Your task to perform on an android device: Add "dell alienware" to the cart on bestbuy Image 0: 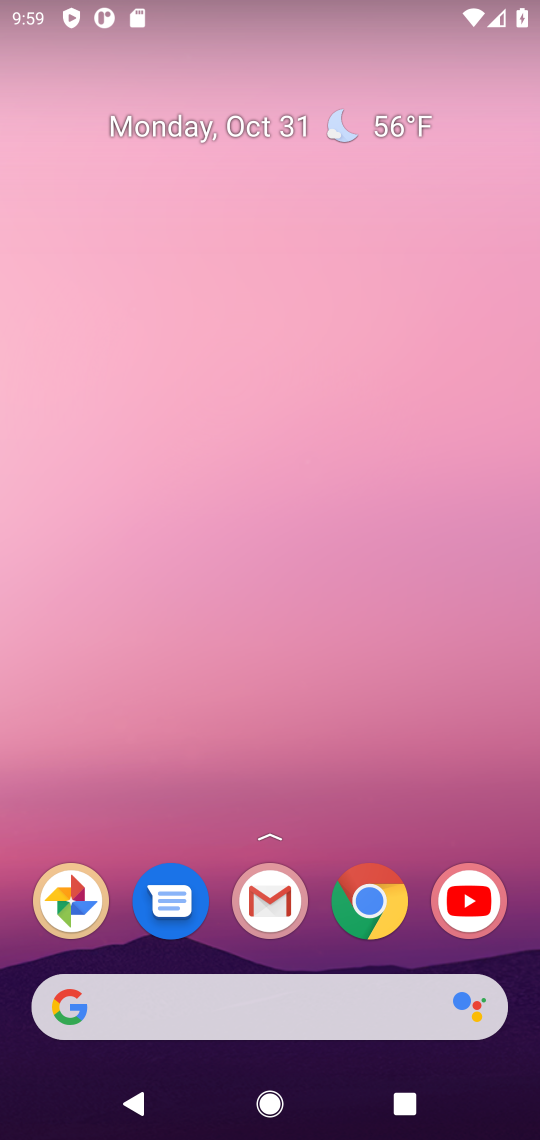
Step 0: drag from (156, 1035) to (193, 431)
Your task to perform on an android device: Add "dell alienware" to the cart on bestbuy Image 1: 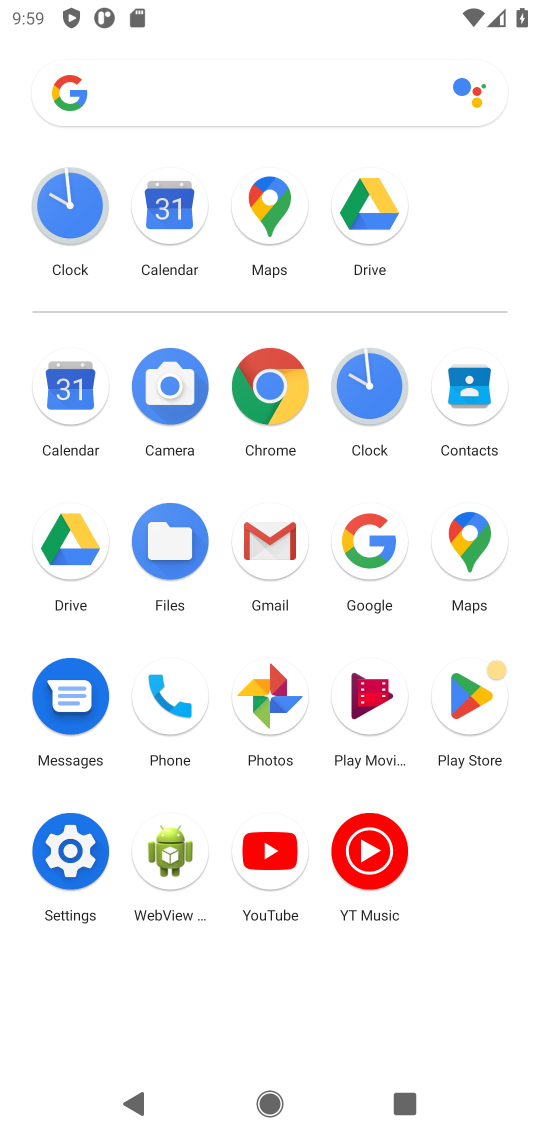
Step 1: click (357, 527)
Your task to perform on an android device: Add "dell alienware" to the cart on bestbuy Image 2: 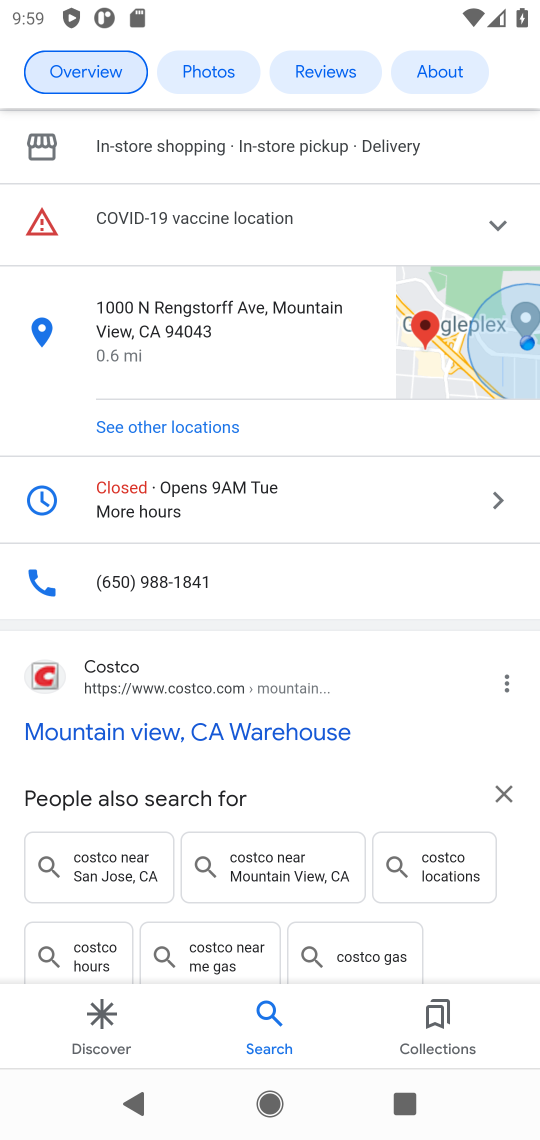
Step 2: drag from (218, 241) to (116, 975)
Your task to perform on an android device: Add "dell alienware" to the cart on bestbuy Image 3: 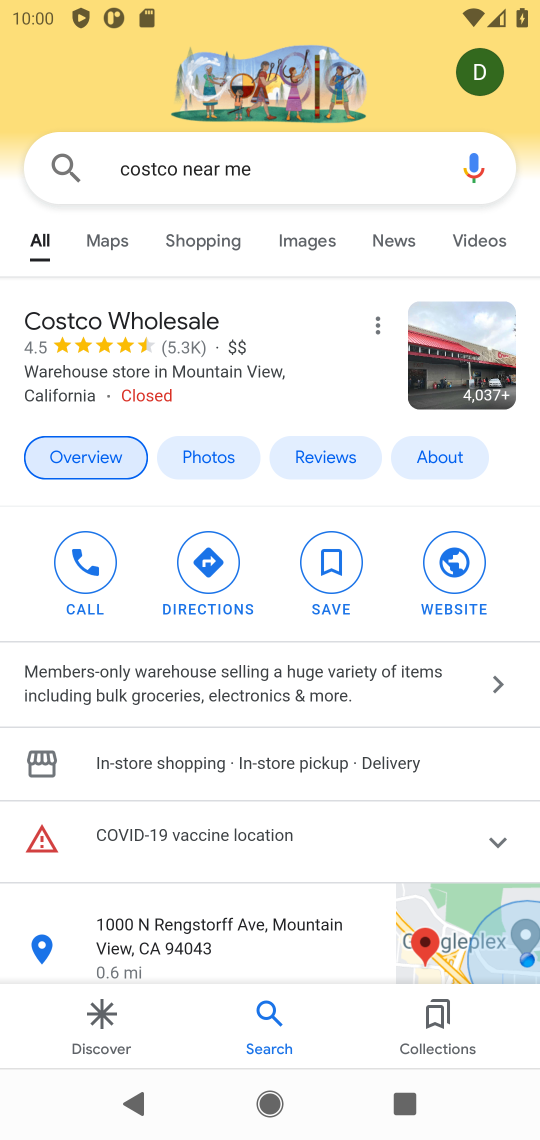
Step 3: click (300, 152)
Your task to perform on an android device: Add "dell alienware" to the cart on bestbuy Image 4: 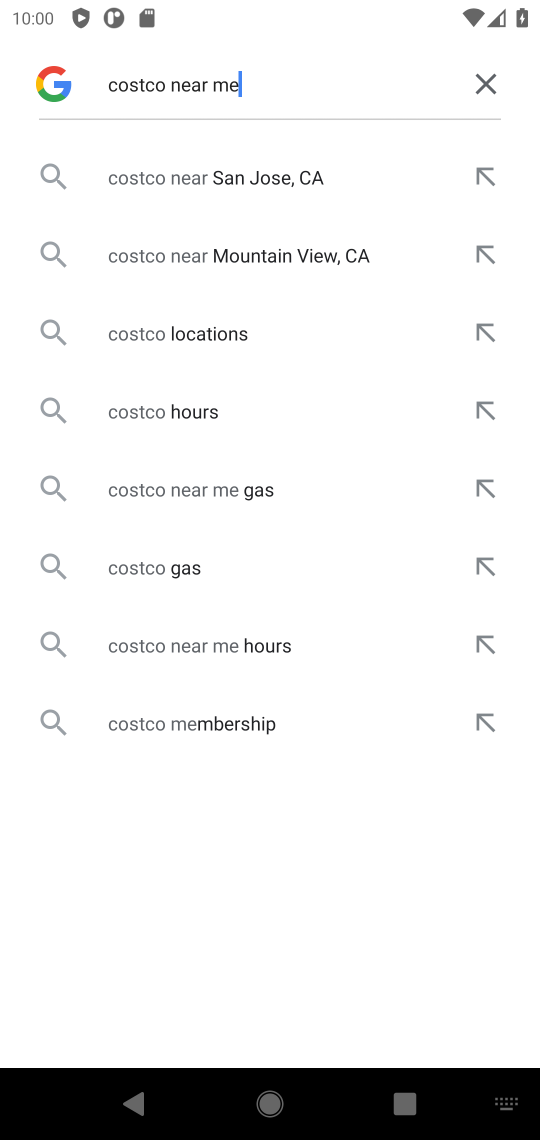
Step 4: click (494, 85)
Your task to perform on an android device: Add "dell alienware" to the cart on bestbuy Image 5: 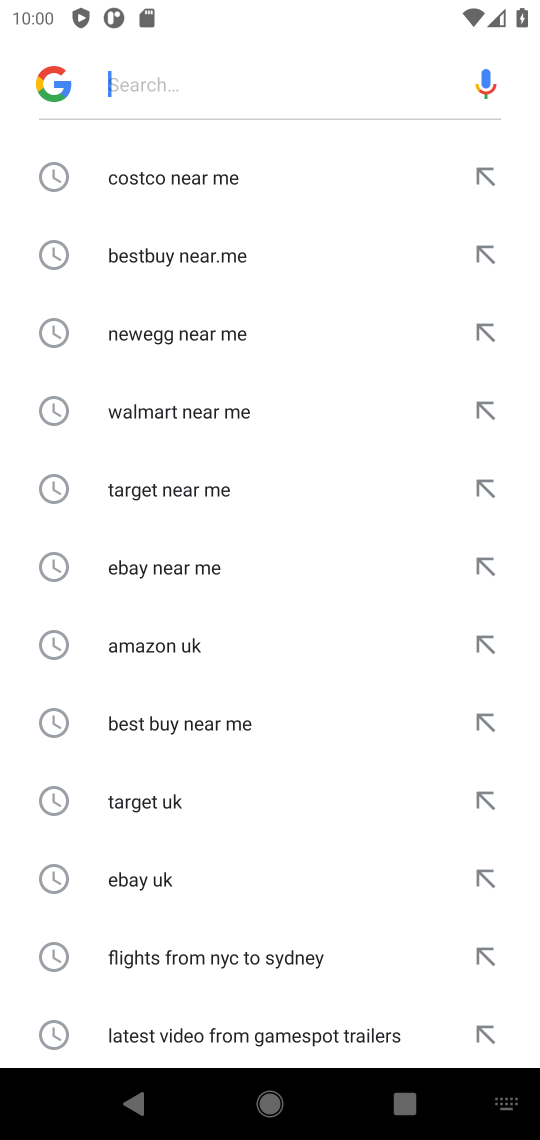
Step 5: click (212, 86)
Your task to perform on an android device: Add "dell alienware" to the cart on bestbuy Image 6: 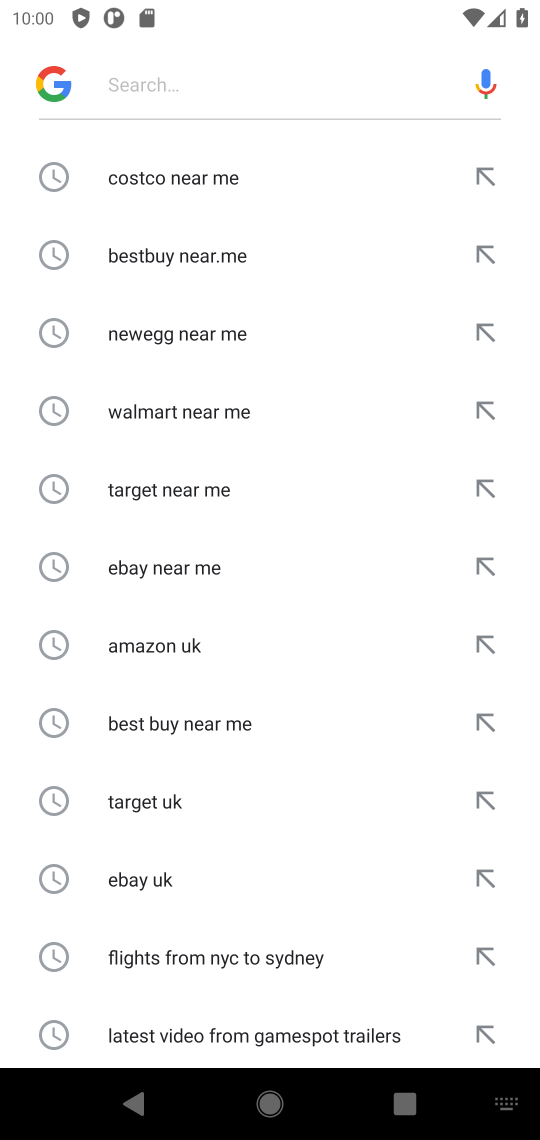
Step 6: type "bestbuy "
Your task to perform on an android device: Add "dell alienware" to the cart on bestbuy Image 7: 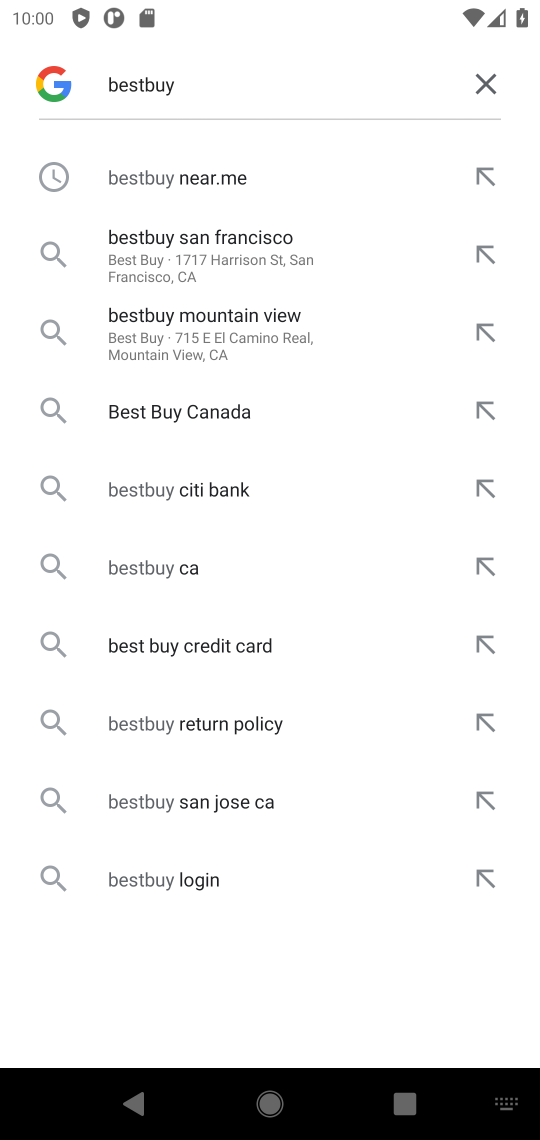
Step 7: click (137, 190)
Your task to perform on an android device: Add "dell alienware" to the cart on bestbuy Image 8: 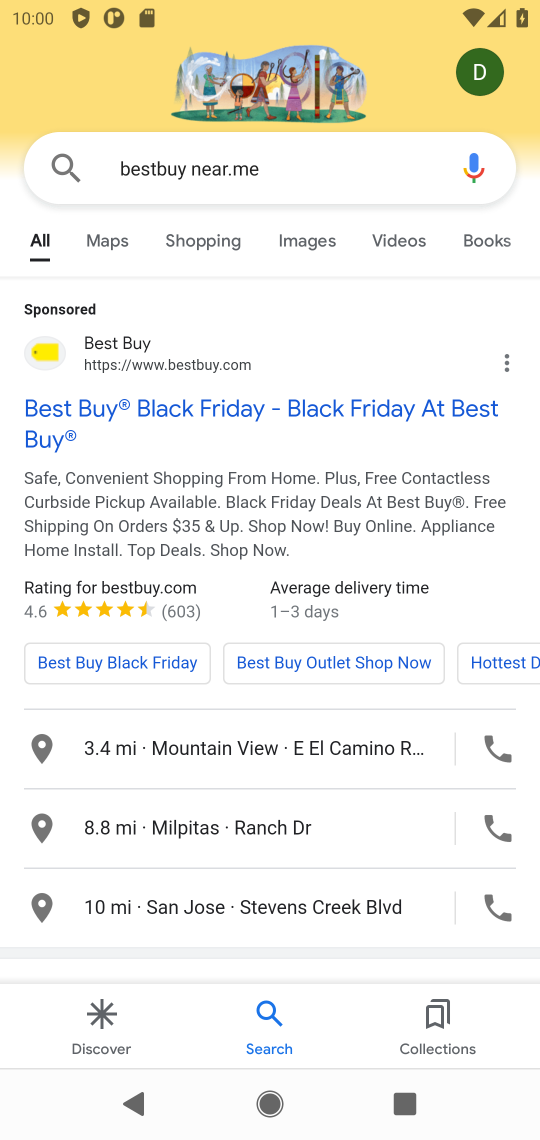
Step 8: click (54, 351)
Your task to perform on an android device: Add "dell alienware" to the cart on bestbuy Image 9: 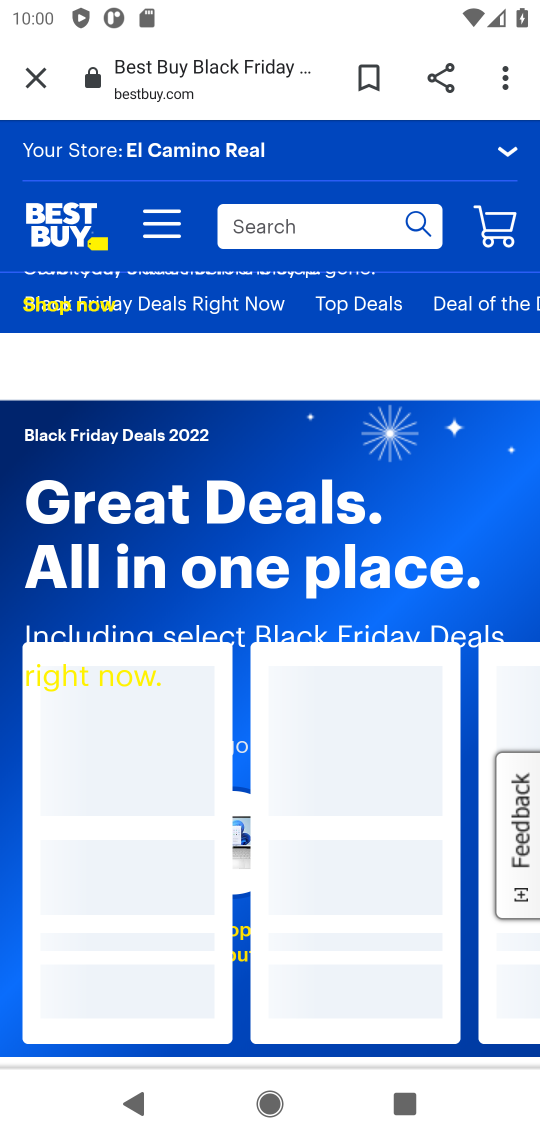
Step 9: click (311, 226)
Your task to perform on an android device: Add "dell alienware" to the cart on bestbuy Image 10: 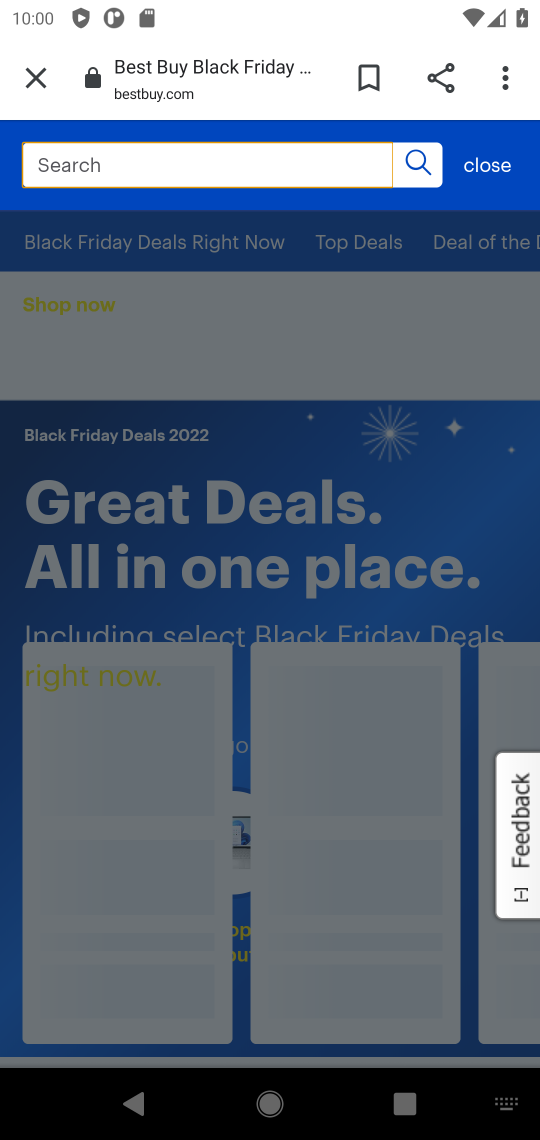
Step 10: type "dell alienware "
Your task to perform on an android device: Add "dell alienware" to the cart on bestbuy Image 11: 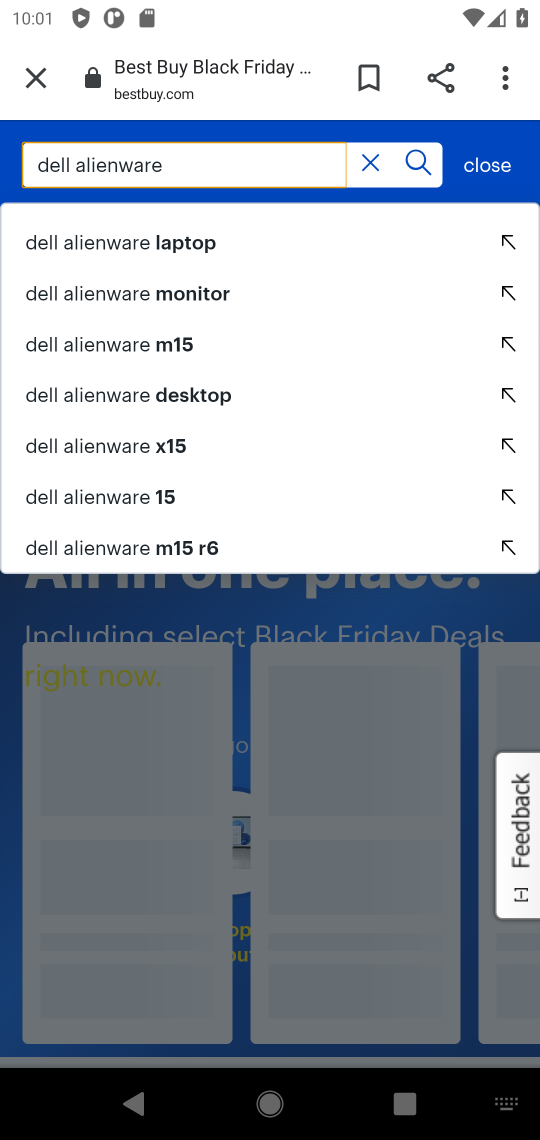
Step 11: click (150, 245)
Your task to perform on an android device: Add "dell alienware" to the cart on bestbuy Image 12: 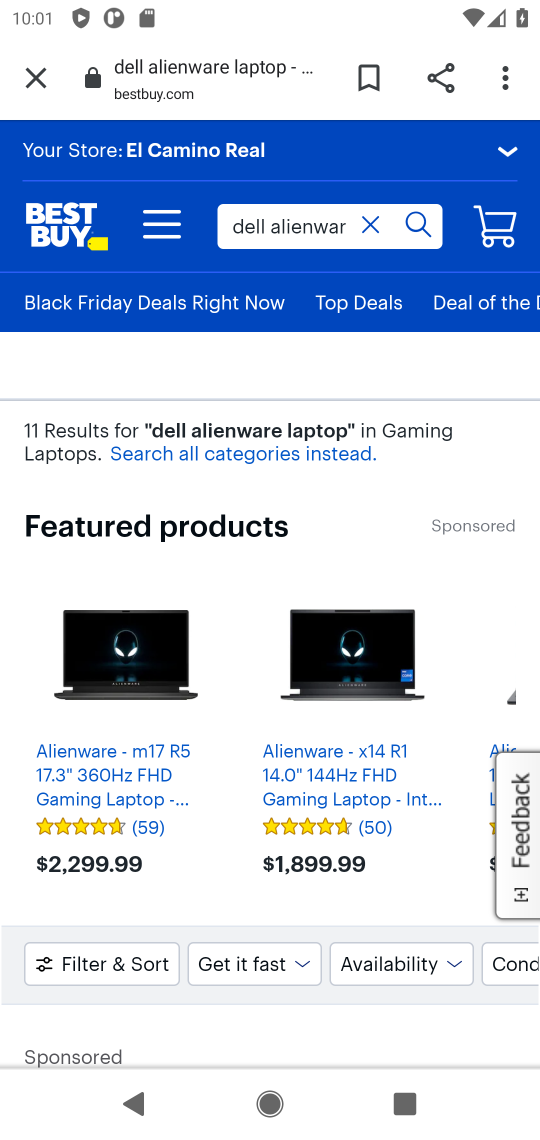
Step 12: click (109, 783)
Your task to perform on an android device: Add "dell alienware" to the cart on bestbuy Image 13: 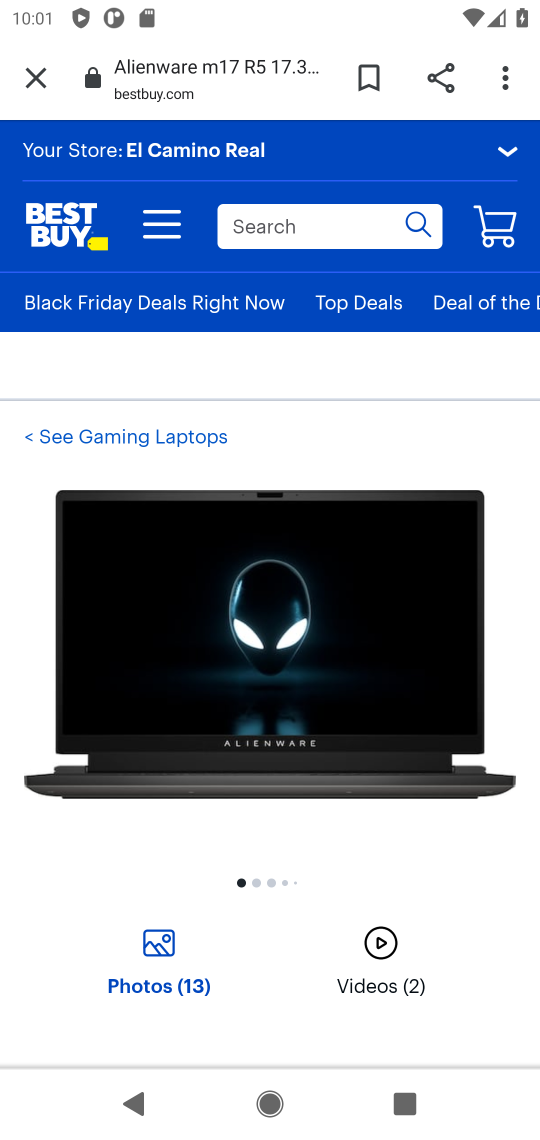
Step 13: drag from (287, 944) to (390, 348)
Your task to perform on an android device: Add "dell alienware" to the cart on bestbuy Image 14: 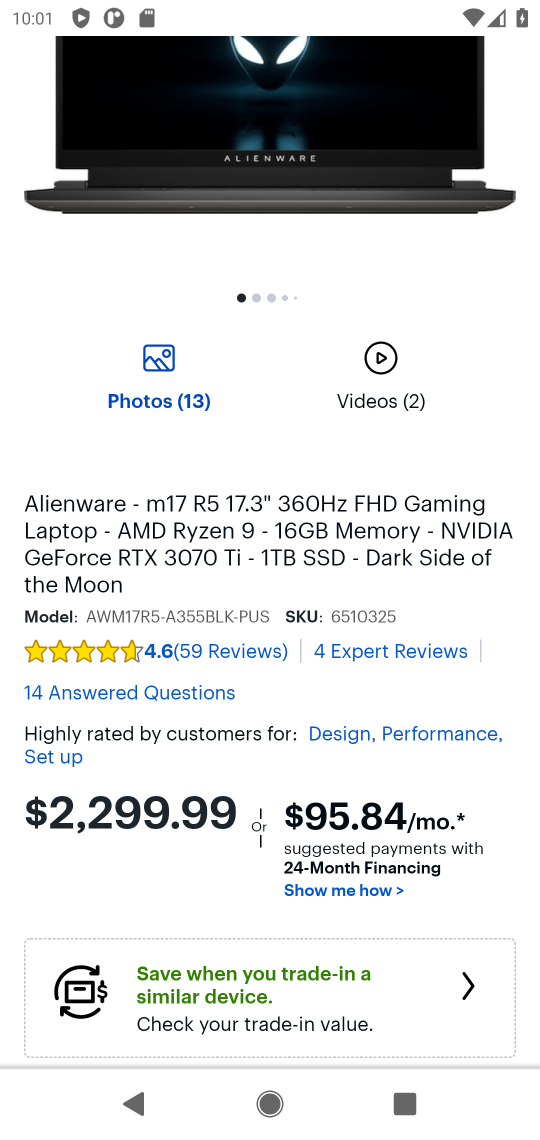
Step 14: drag from (240, 829) to (259, 280)
Your task to perform on an android device: Add "dell alienware" to the cart on bestbuy Image 15: 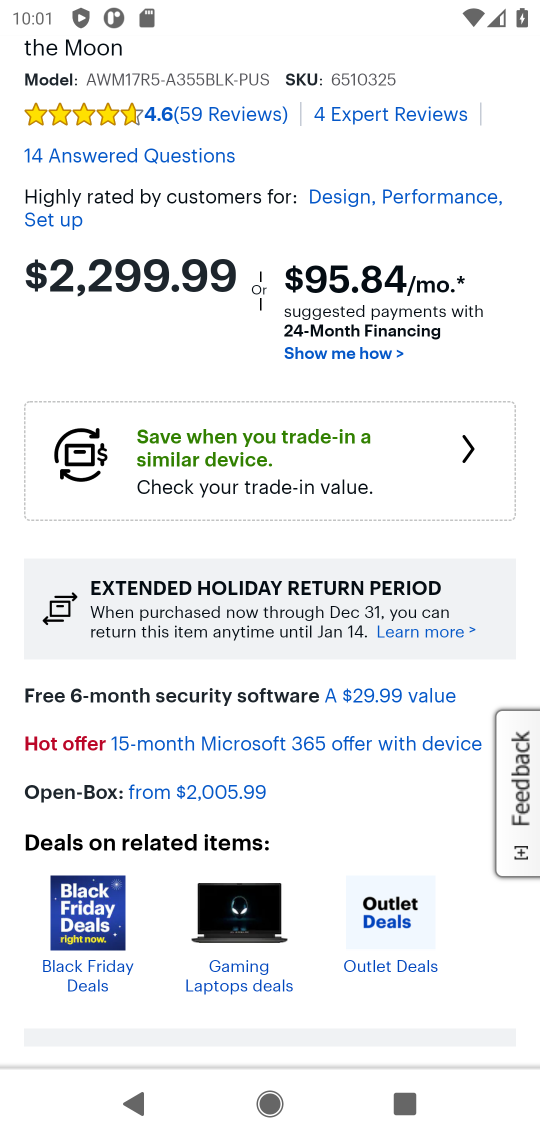
Step 15: drag from (195, 750) to (223, 234)
Your task to perform on an android device: Add "dell alienware" to the cart on bestbuy Image 16: 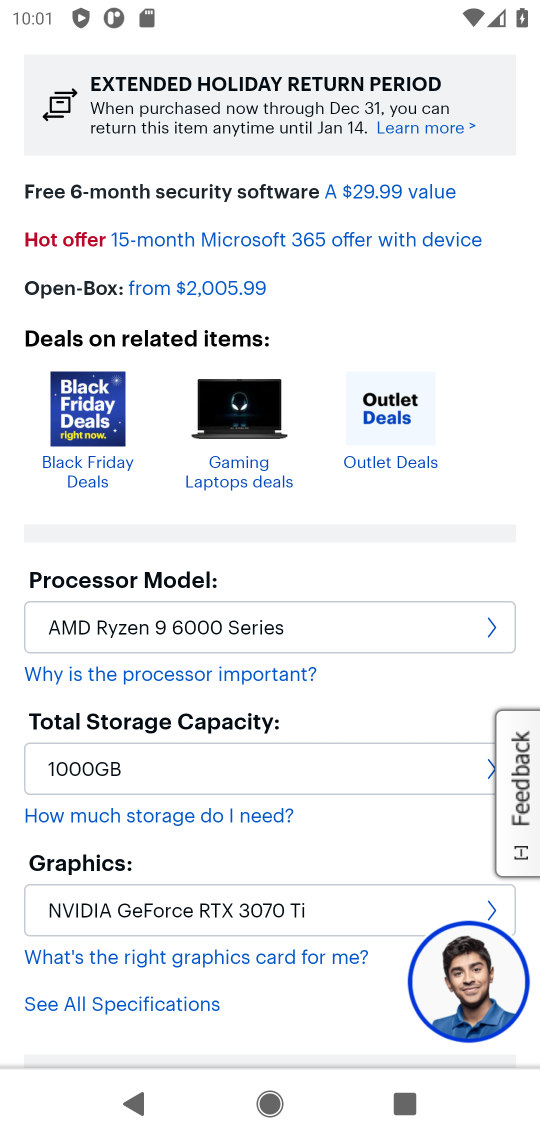
Step 16: drag from (168, 702) to (196, 281)
Your task to perform on an android device: Add "dell alienware" to the cart on bestbuy Image 17: 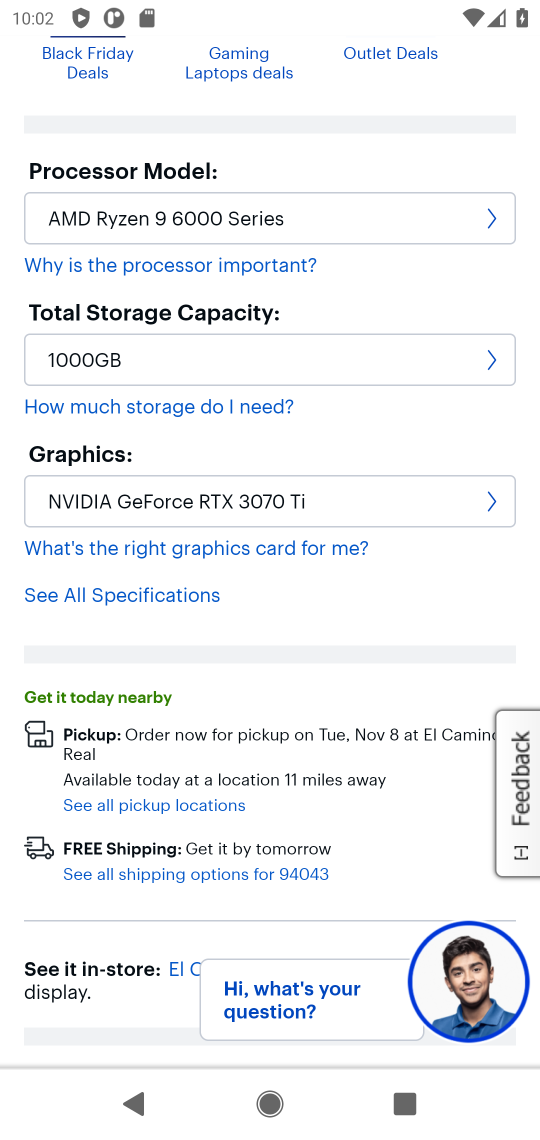
Step 17: drag from (152, 888) to (235, 185)
Your task to perform on an android device: Add "dell alienware" to the cart on bestbuy Image 18: 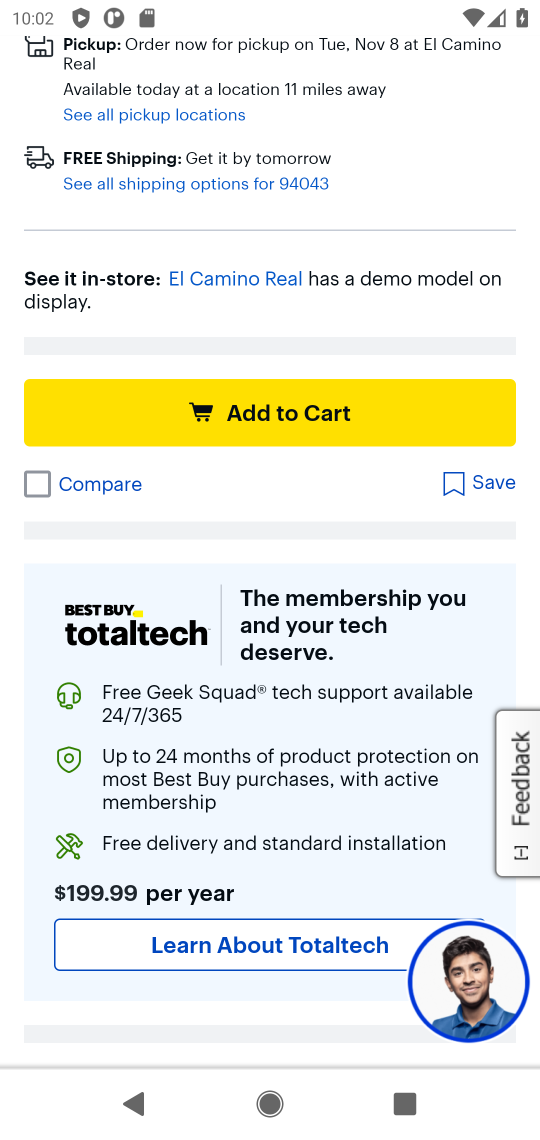
Step 18: click (210, 403)
Your task to perform on an android device: Add "dell alienware" to the cart on bestbuy Image 19: 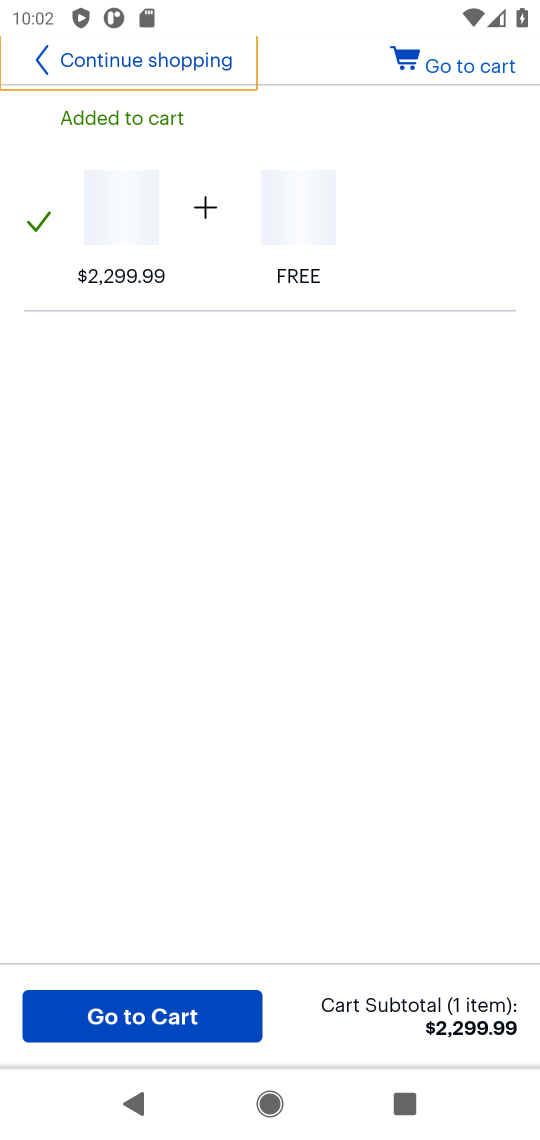
Step 19: task complete